Your task to perform on an android device: open app "The Home Depot" Image 0: 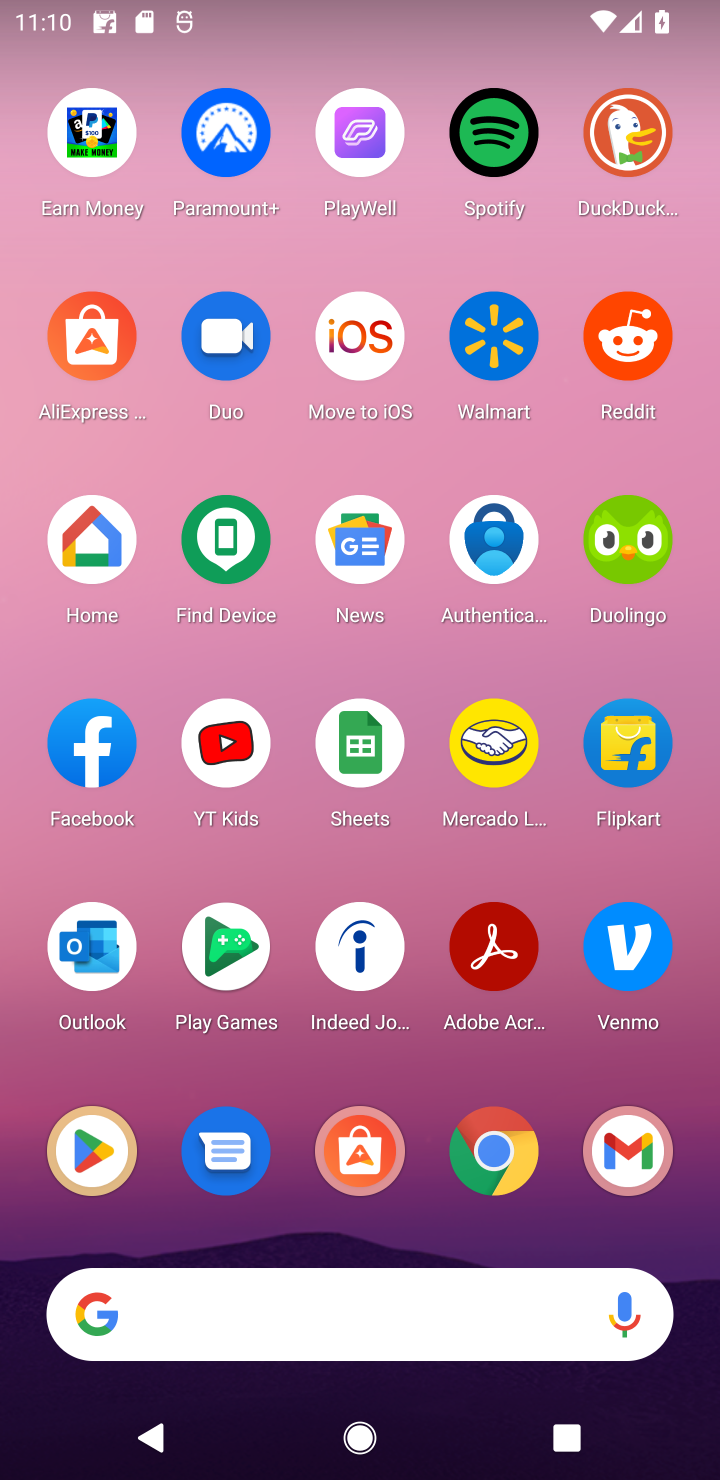
Step 0: click (99, 1149)
Your task to perform on an android device: open app "The Home Depot" Image 1: 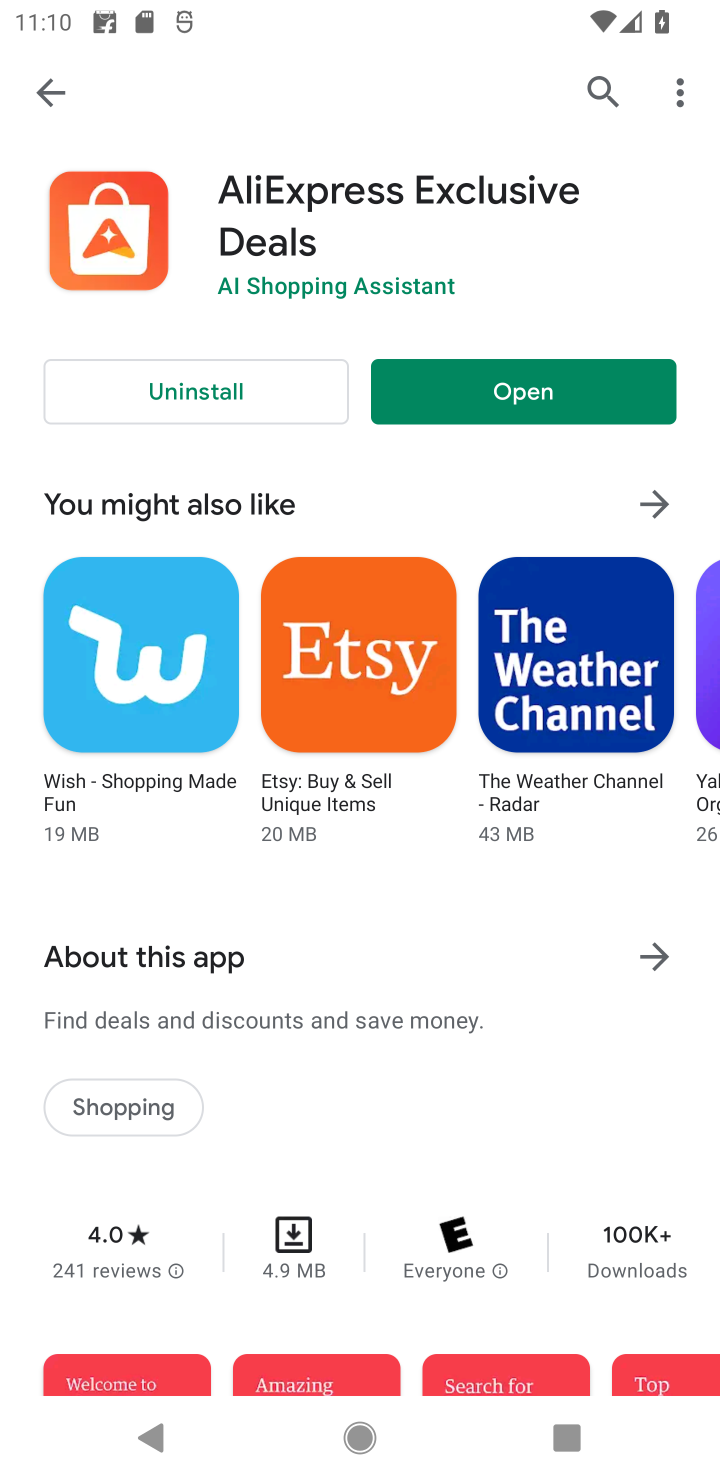
Step 1: click (599, 94)
Your task to perform on an android device: open app "The Home Depot" Image 2: 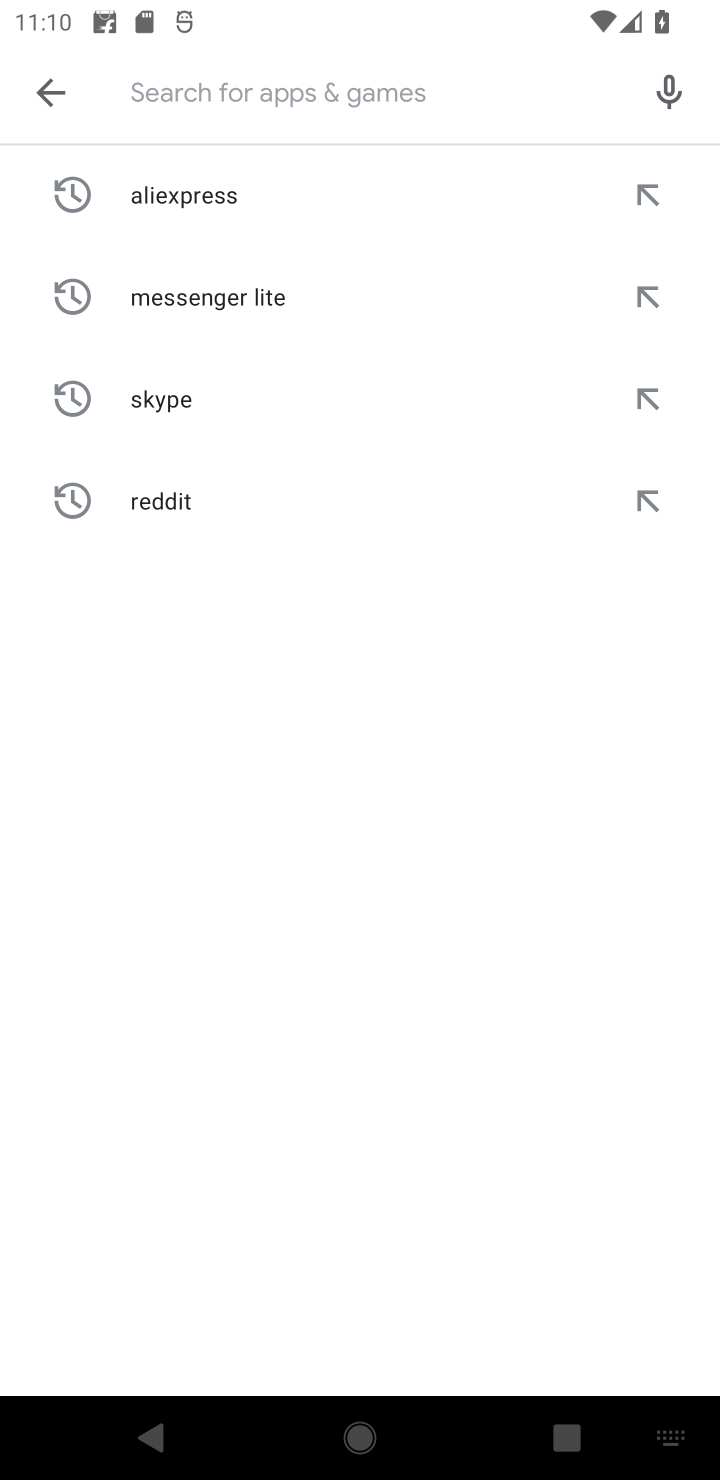
Step 2: type "The Home Depot"
Your task to perform on an android device: open app "The Home Depot" Image 3: 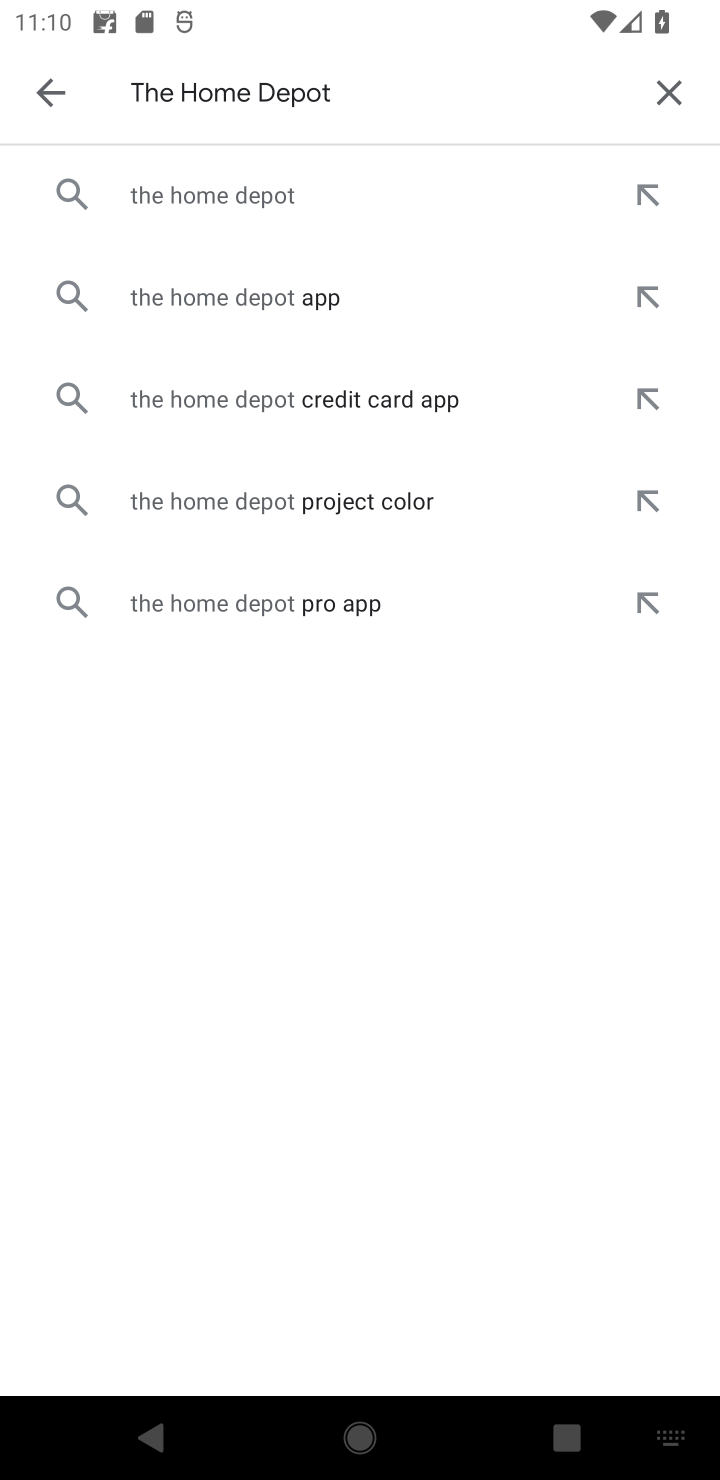
Step 3: click (323, 192)
Your task to perform on an android device: open app "The Home Depot" Image 4: 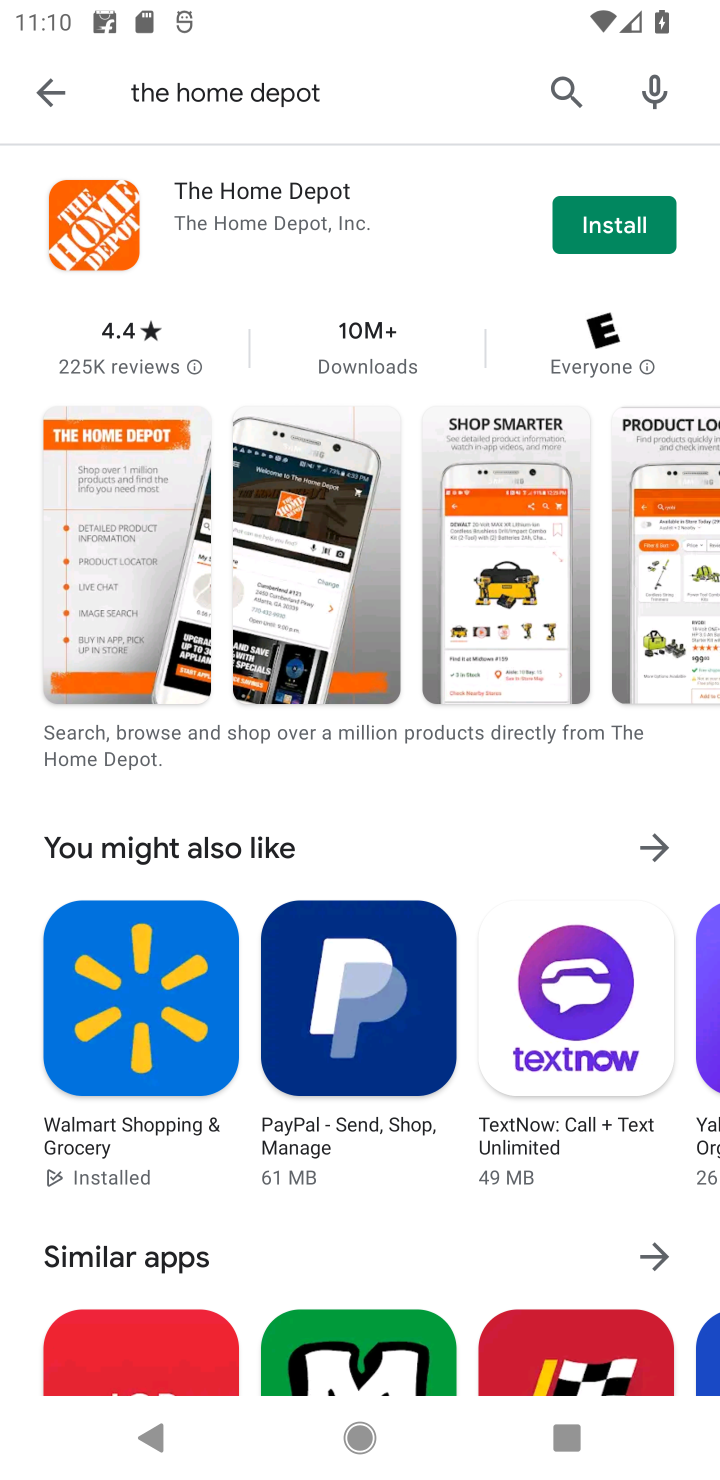
Step 4: task complete